Your task to perform on an android device: Add "macbook" to the cart on amazon Image 0: 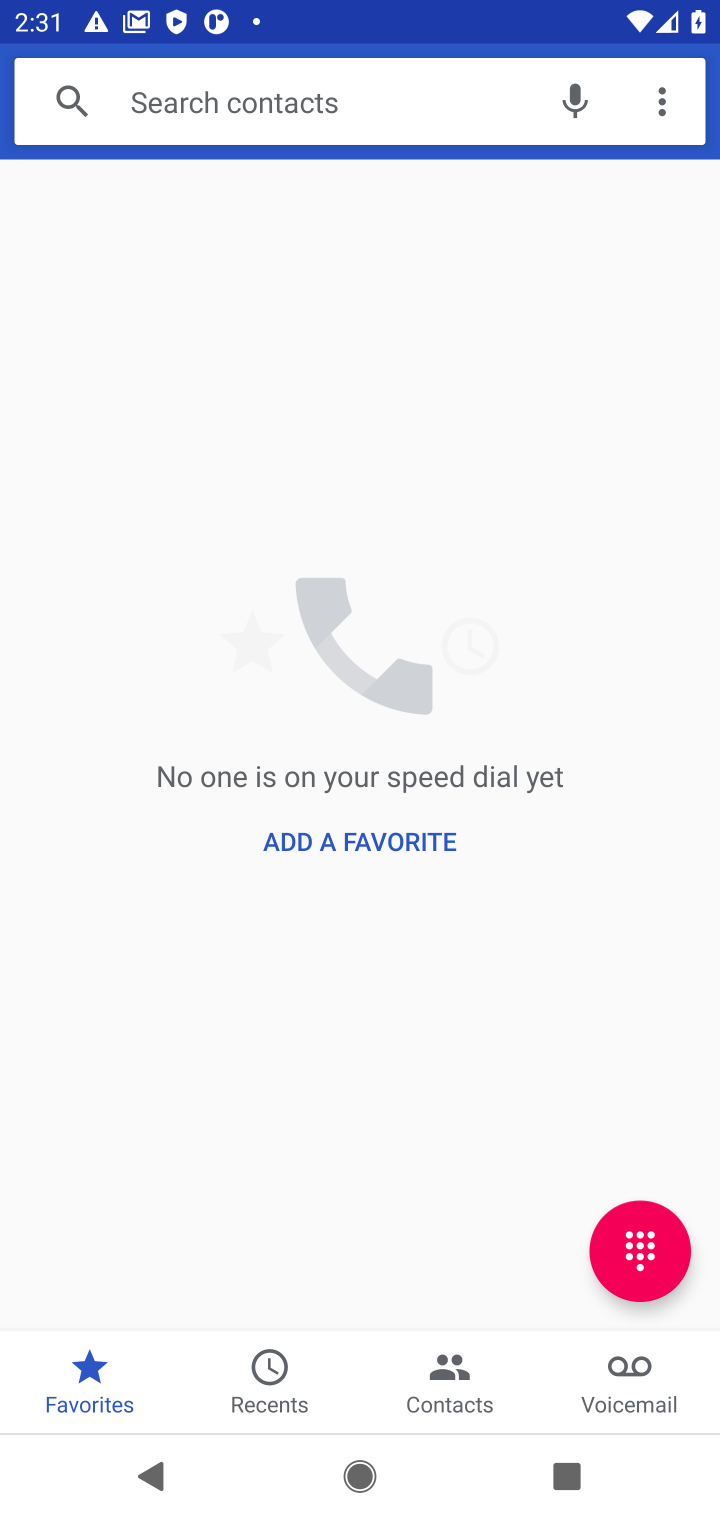
Step 0: press home button
Your task to perform on an android device: Add "macbook" to the cart on amazon Image 1: 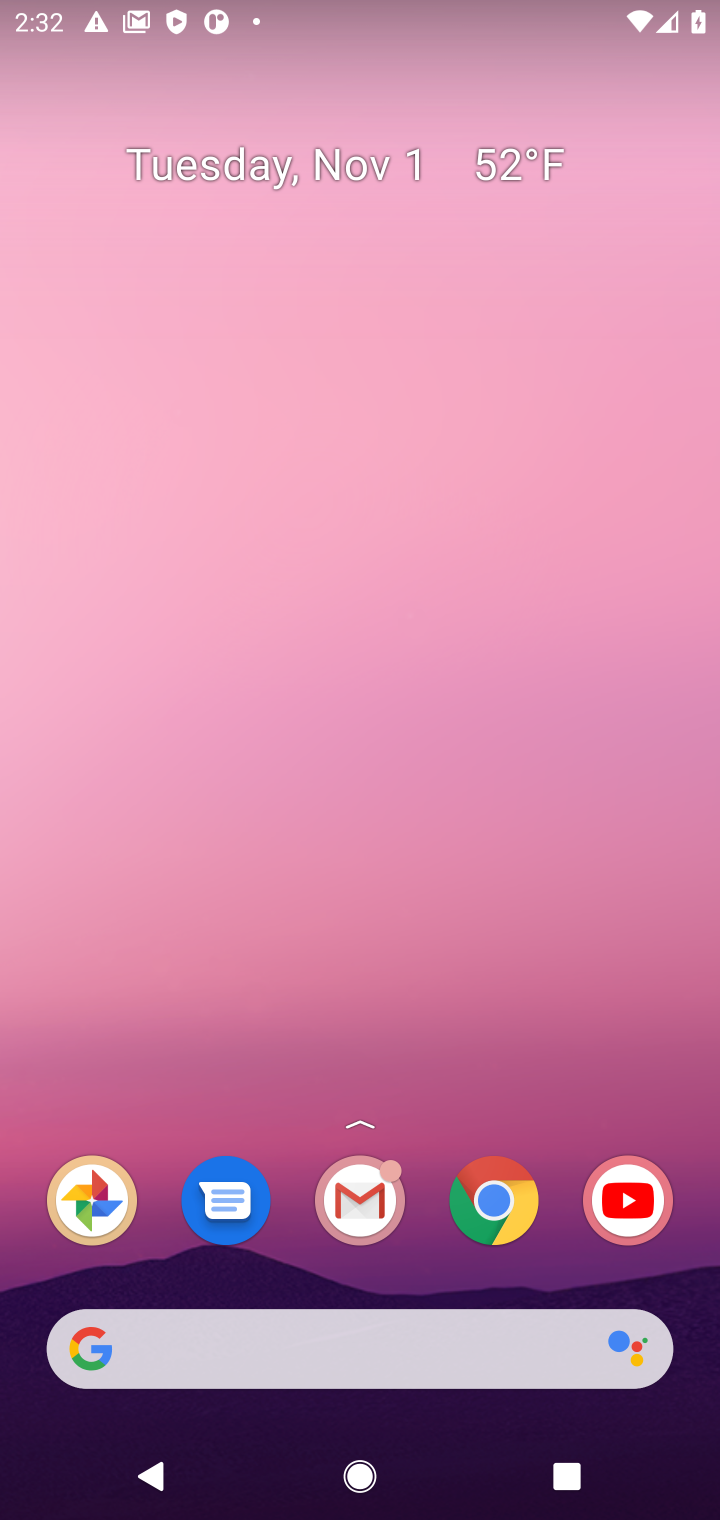
Step 1: click (72, 1334)
Your task to perform on an android device: Add "macbook" to the cart on amazon Image 2: 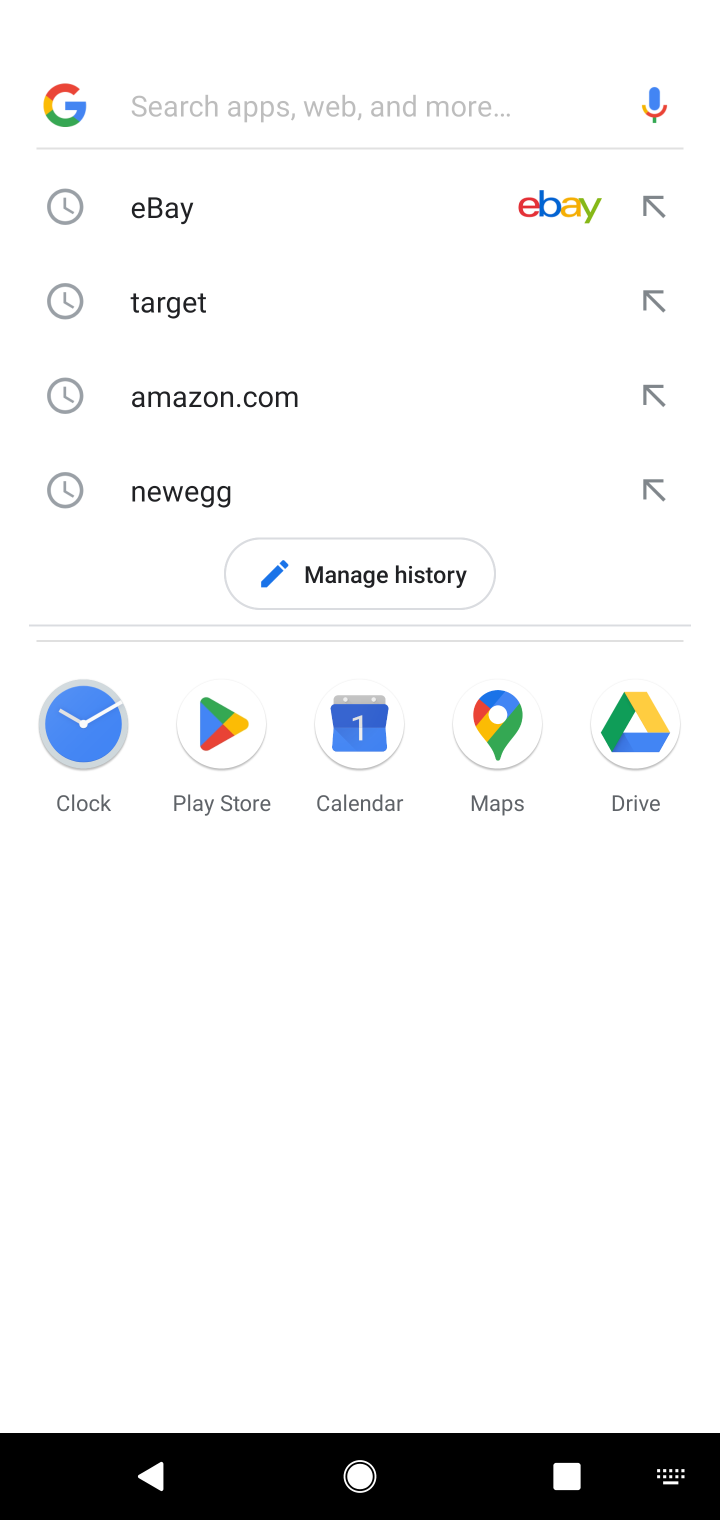
Step 2: click (225, 396)
Your task to perform on an android device: Add "macbook" to the cart on amazon Image 3: 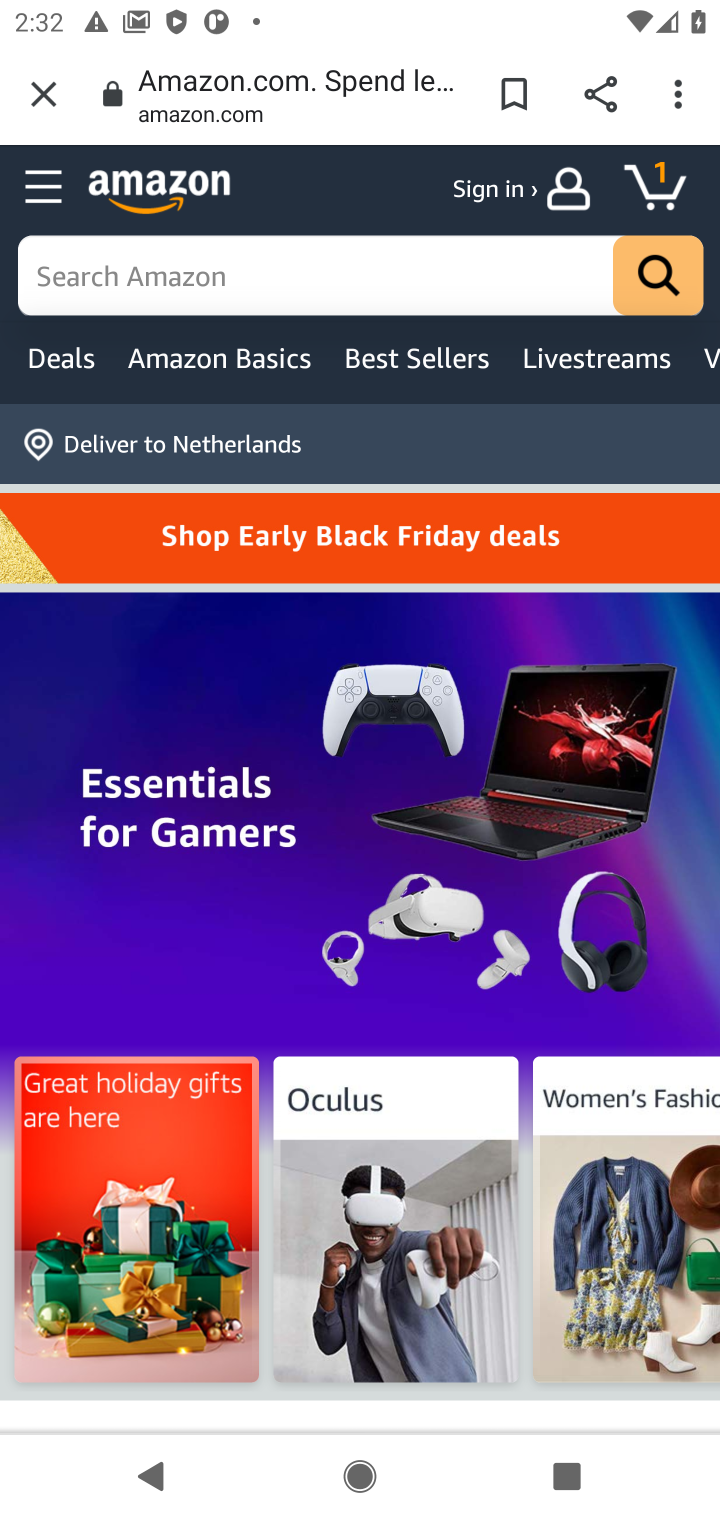
Step 3: click (283, 260)
Your task to perform on an android device: Add "macbook" to the cart on amazon Image 4: 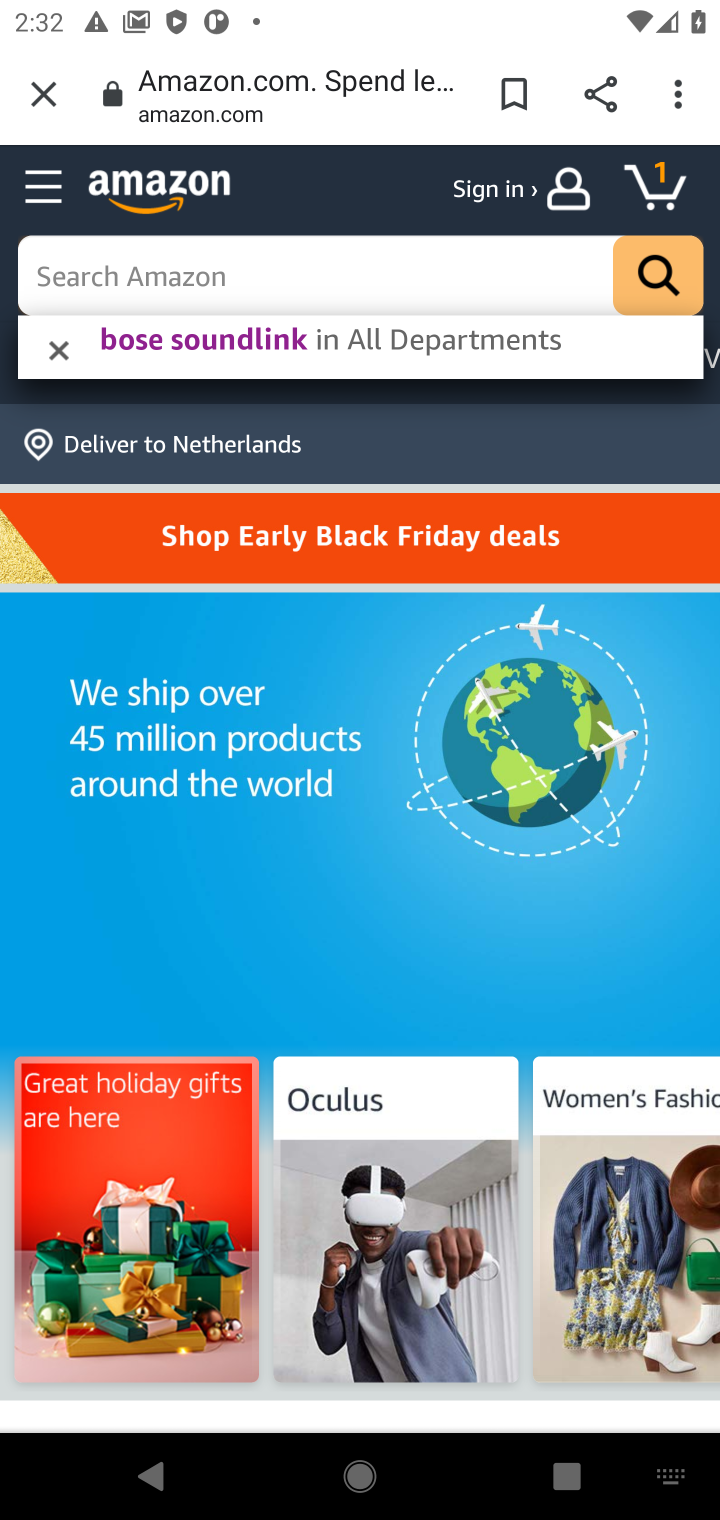
Step 4: type "macbook"
Your task to perform on an android device: Add "macbook" to the cart on amazon Image 5: 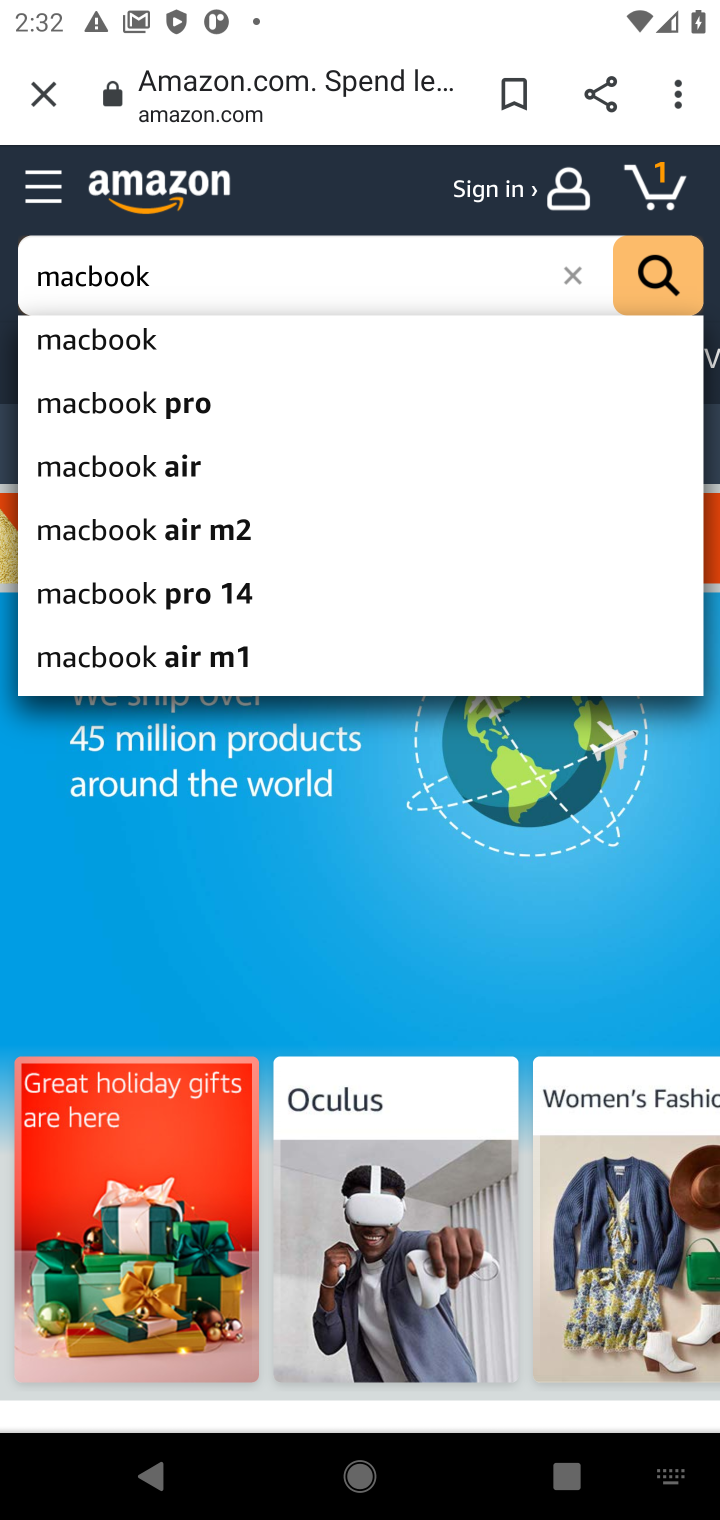
Step 5: click (118, 340)
Your task to perform on an android device: Add "macbook" to the cart on amazon Image 6: 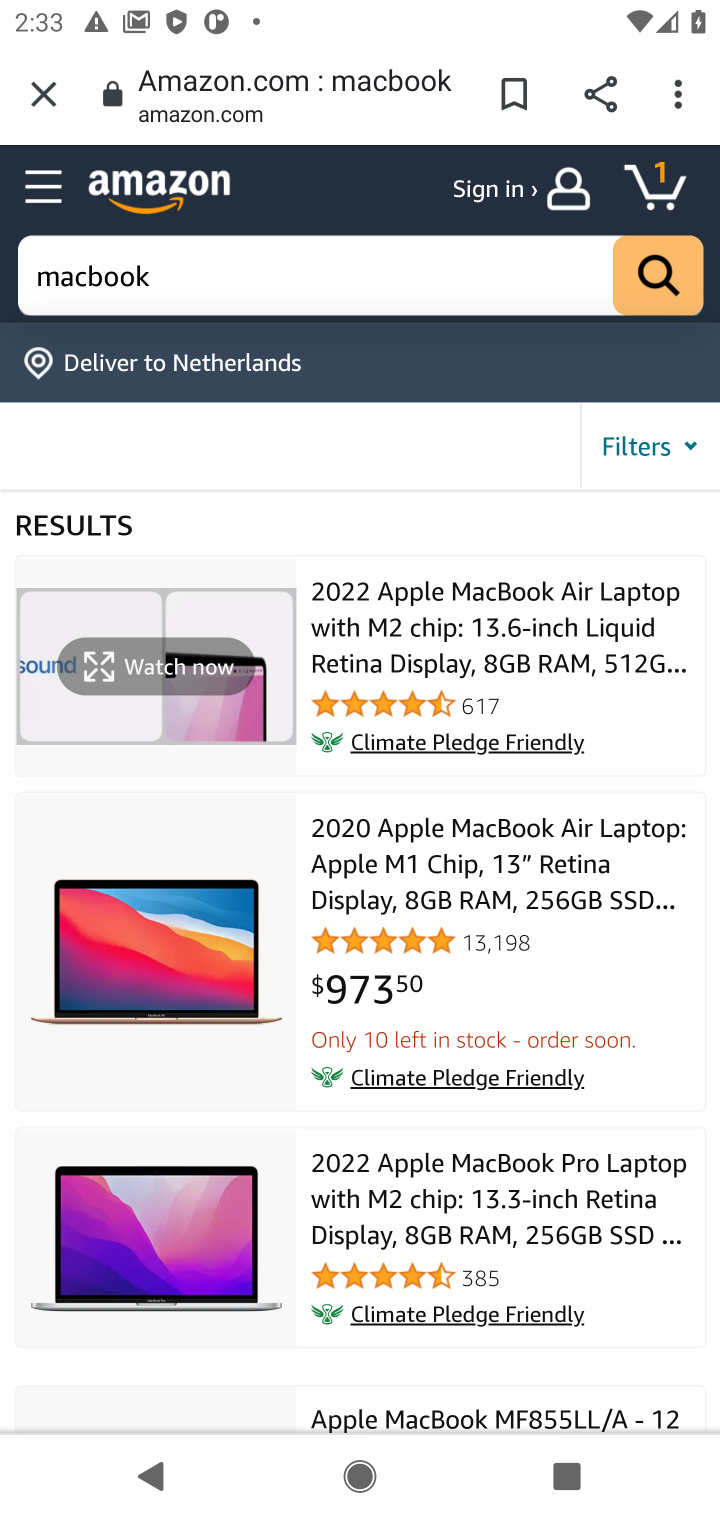
Step 6: click (125, 972)
Your task to perform on an android device: Add "macbook" to the cart on amazon Image 7: 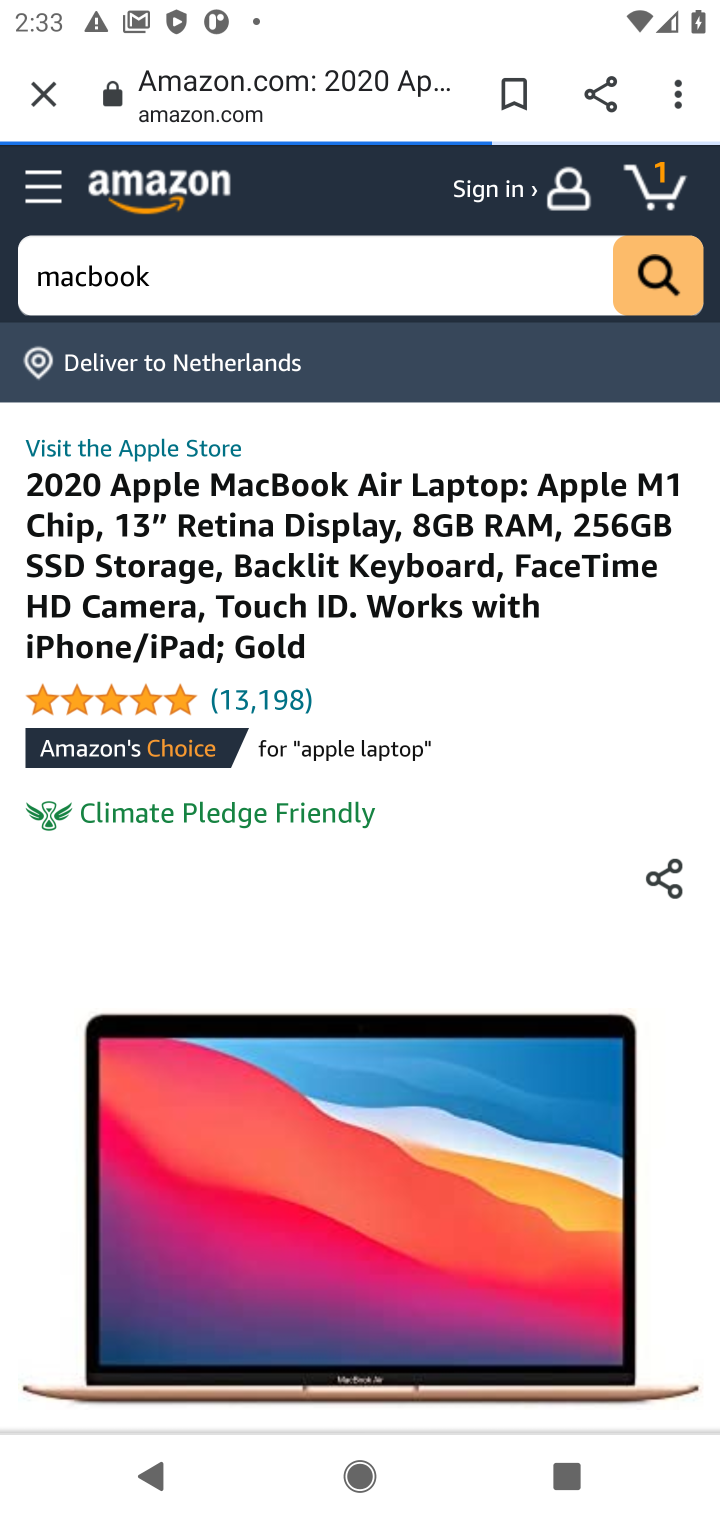
Step 7: drag from (403, 1230) to (426, 415)
Your task to perform on an android device: Add "macbook" to the cart on amazon Image 8: 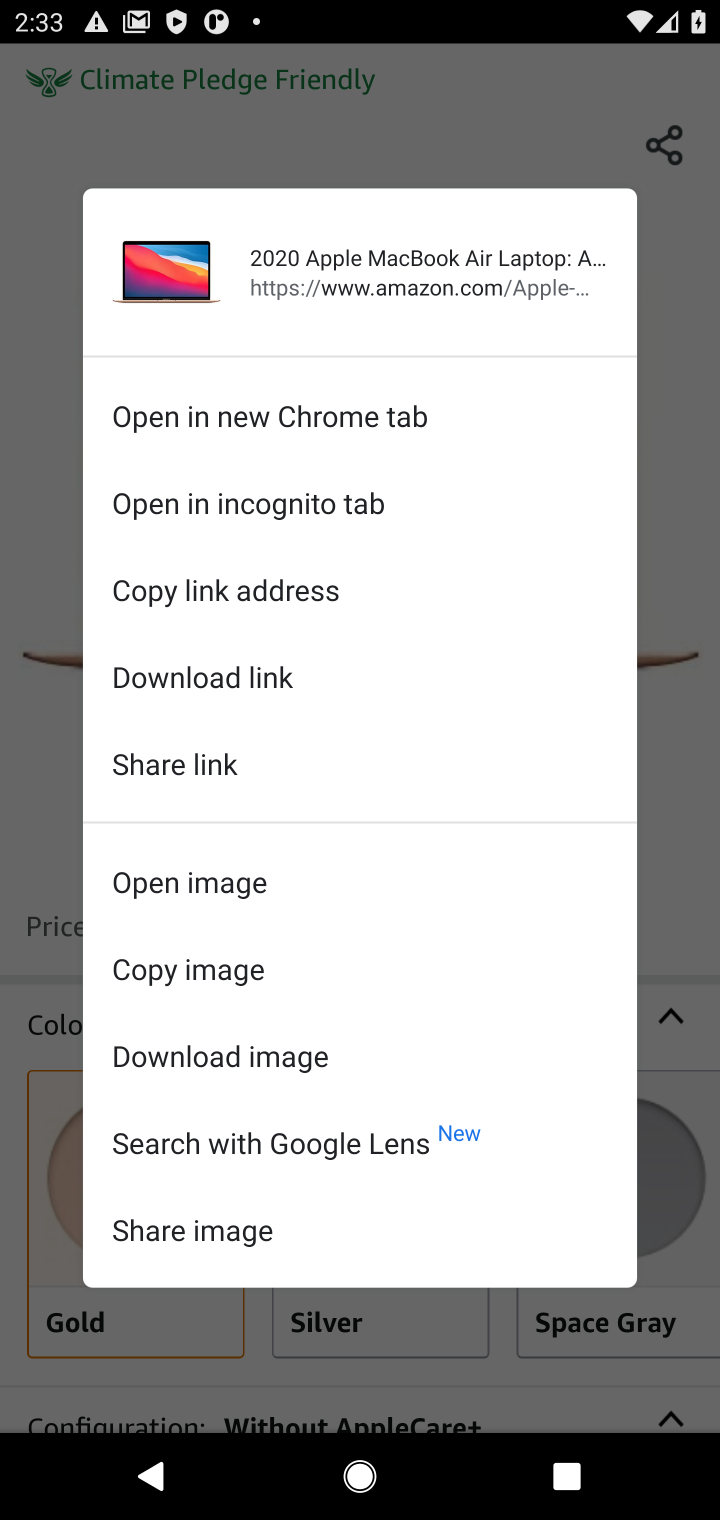
Step 8: click (681, 507)
Your task to perform on an android device: Add "macbook" to the cart on amazon Image 9: 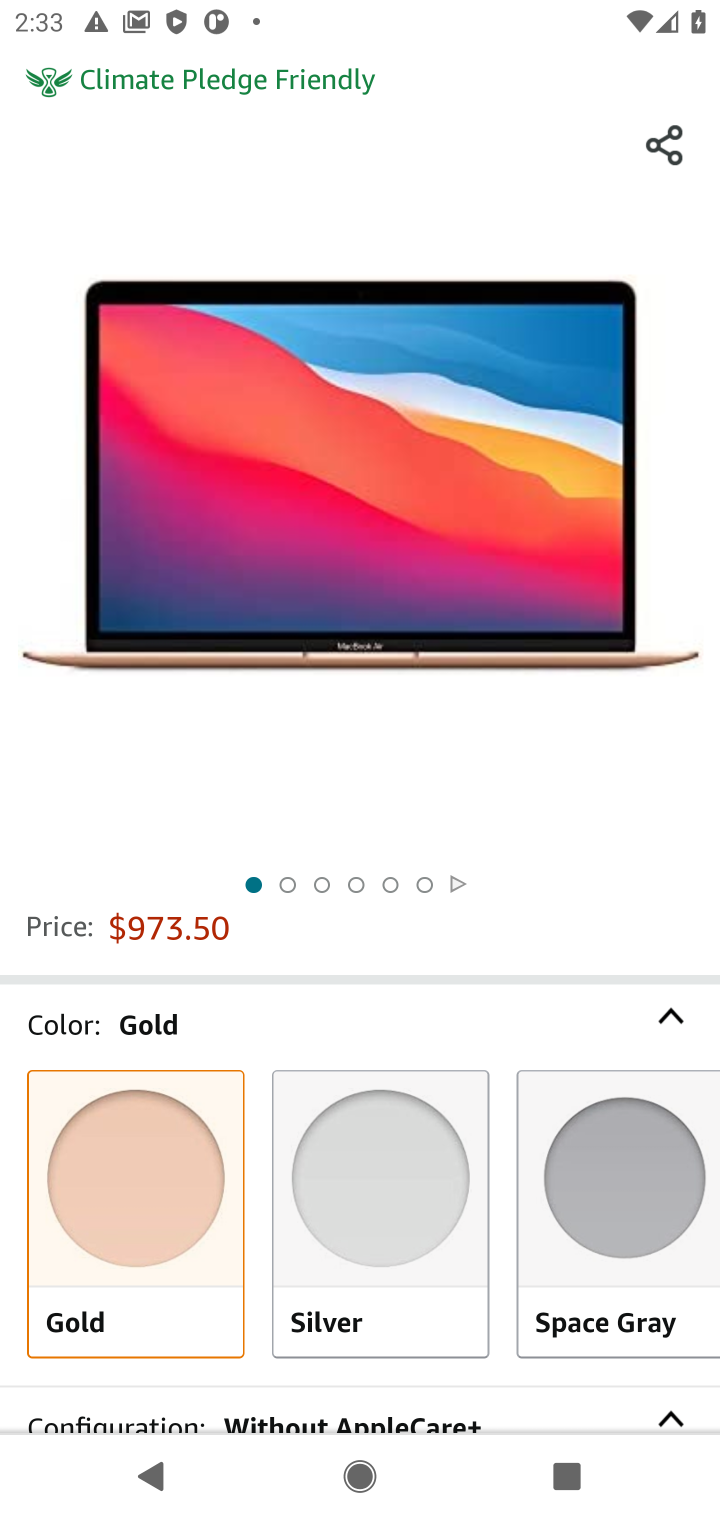
Step 9: task complete